Your task to perform on an android device: check the backup settings in the google photos Image 0: 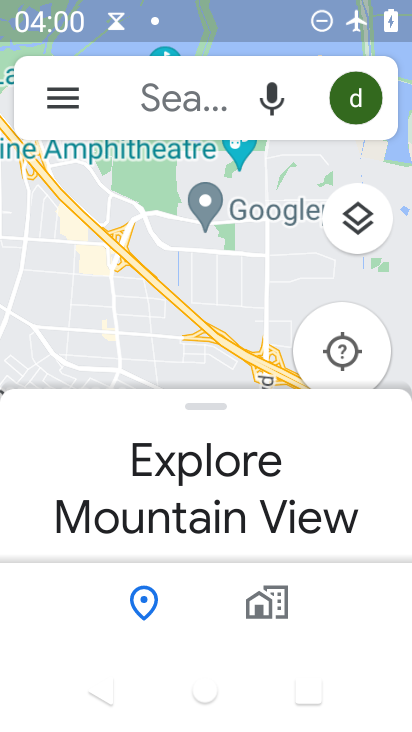
Step 0: press home button
Your task to perform on an android device: check the backup settings in the google photos Image 1: 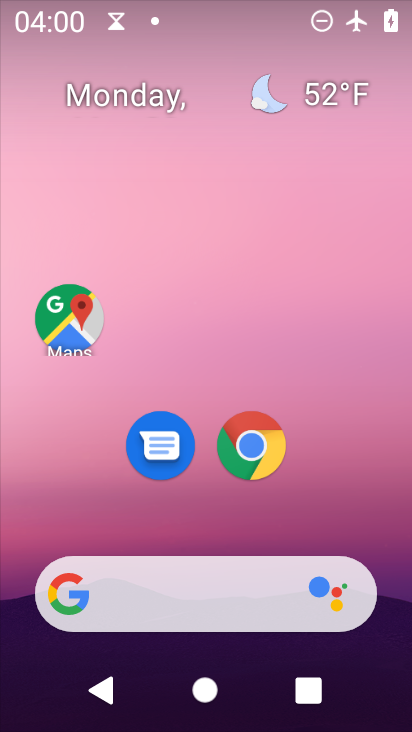
Step 1: drag from (197, 484) to (265, 11)
Your task to perform on an android device: check the backup settings in the google photos Image 2: 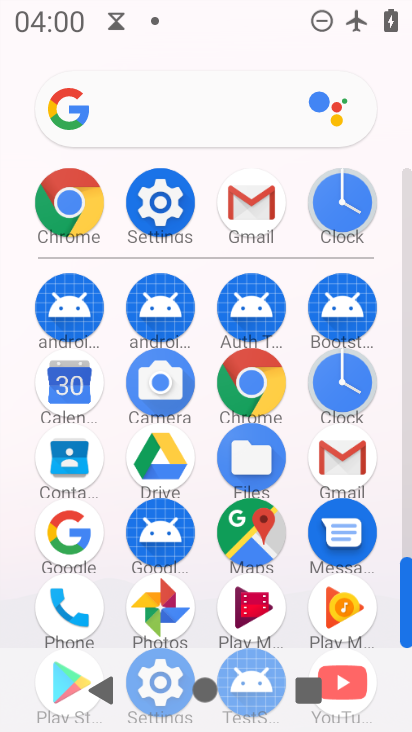
Step 2: click (164, 614)
Your task to perform on an android device: check the backup settings in the google photos Image 3: 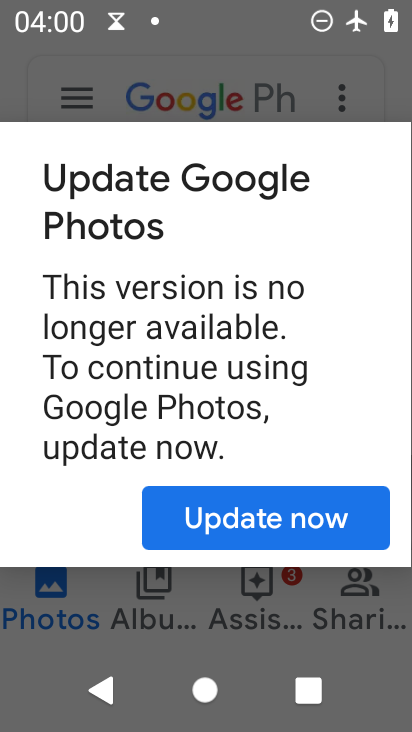
Step 3: click (266, 516)
Your task to perform on an android device: check the backup settings in the google photos Image 4: 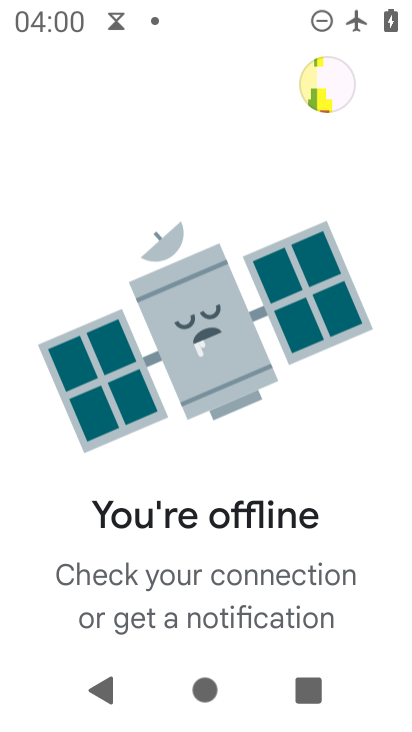
Step 4: press back button
Your task to perform on an android device: check the backup settings in the google photos Image 5: 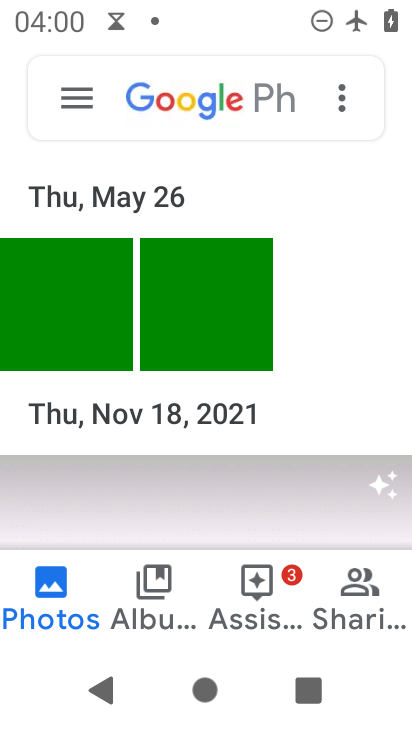
Step 5: click (57, 95)
Your task to perform on an android device: check the backup settings in the google photos Image 6: 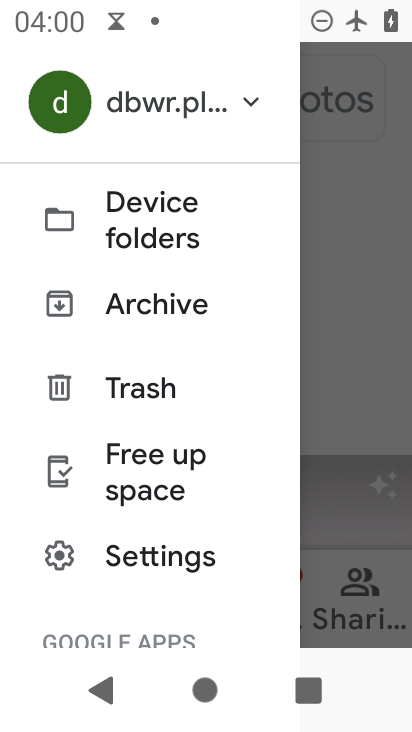
Step 6: click (106, 548)
Your task to perform on an android device: check the backup settings in the google photos Image 7: 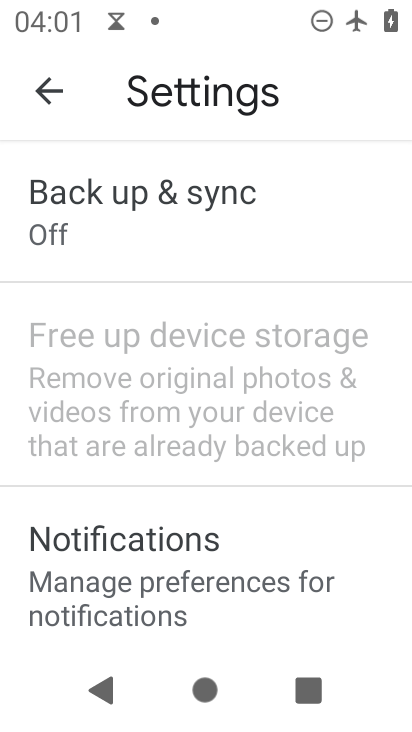
Step 7: drag from (147, 422) to (162, 463)
Your task to perform on an android device: check the backup settings in the google photos Image 8: 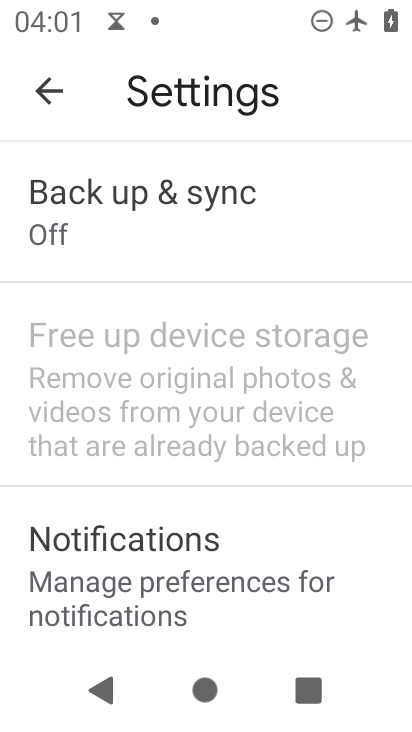
Step 8: click (202, 246)
Your task to perform on an android device: check the backup settings in the google photos Image 9: 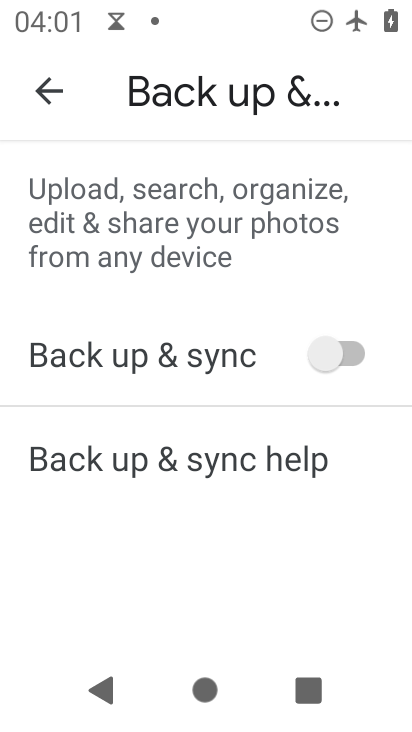
Step 9: task complete